Your task to perform on an android device: Do I have any events this weekend? Image 0: 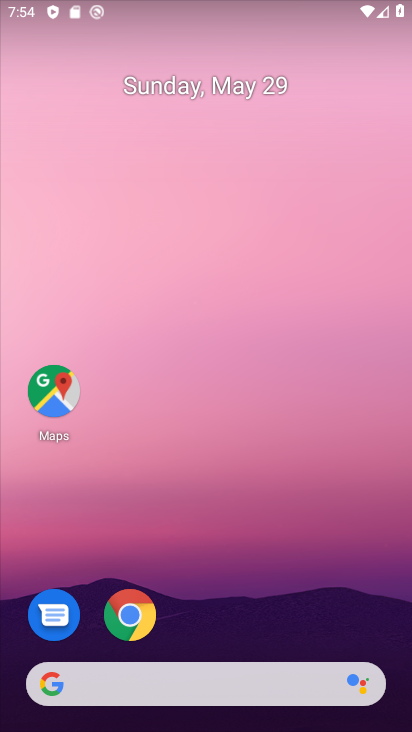
Step 0: drag from (285, 625) to (187, 171)
Your task to perform on an android device: Do I have any events this weekend? Image 1: 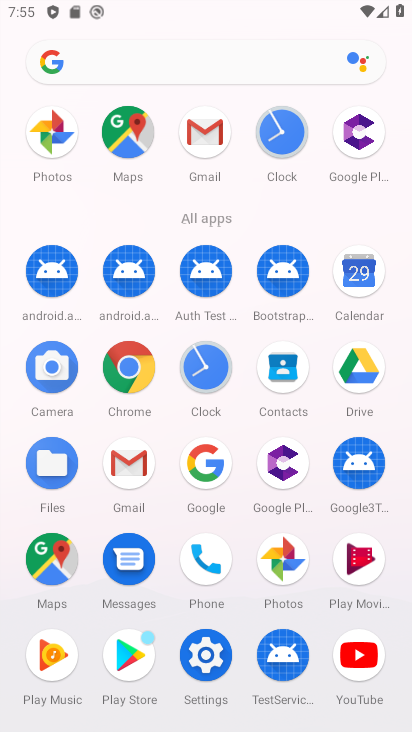
Step 1: click (353, 282)
Your task to perform on an android device: Do I have any events this weekend? Image 2: 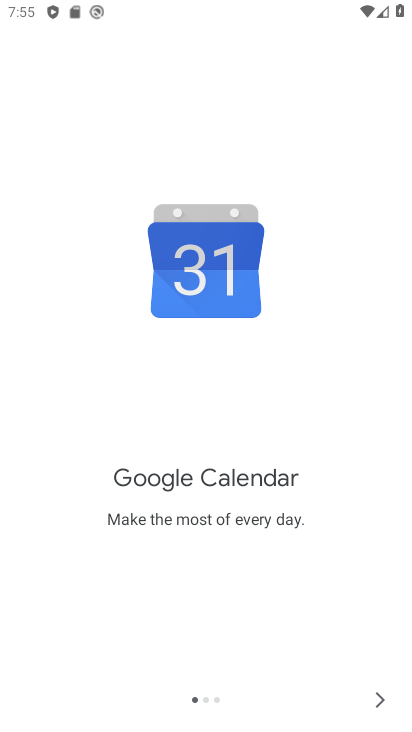
Step 2: click (376, 697)
Your task to perform on an android device: Do I have any events this weekend? Image 3: 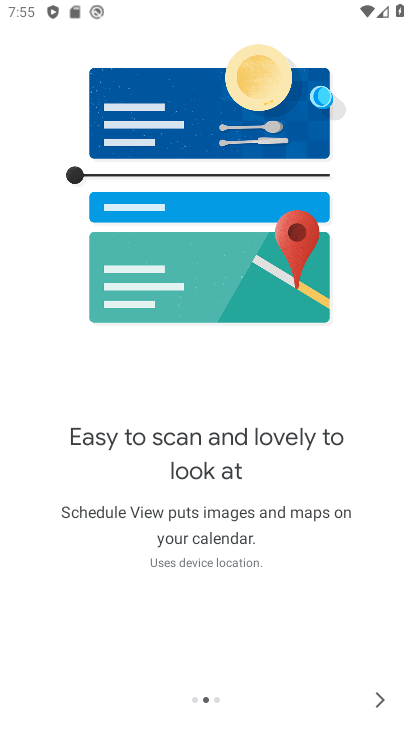
Step 3: click (376, 697)
Your task to perform on an android device: Do I have any events this weekend? Image 4: 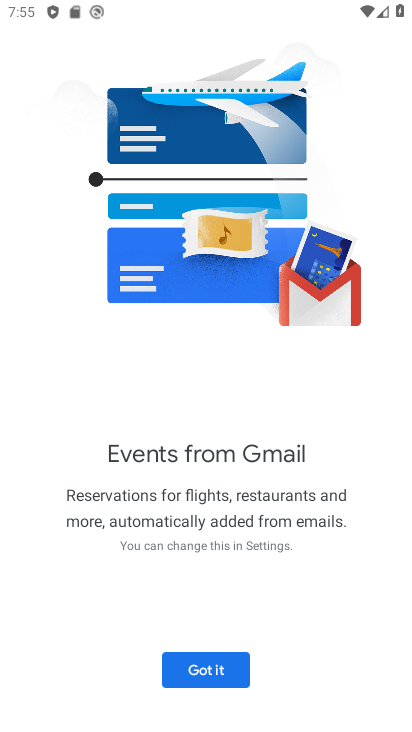
Step 4: click (223, 652)
Your task to perform on an android device: Do I have any events this weekend? Image 5: 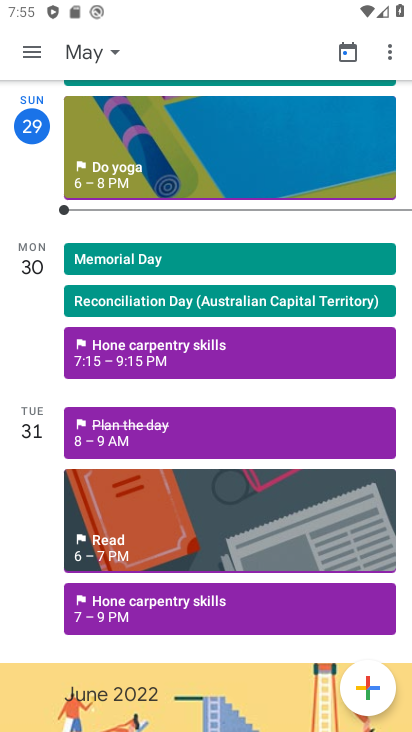
Step 5: click (33, 51)
Your task to perform on an android device: Do I have any events this weekend? Image 6: 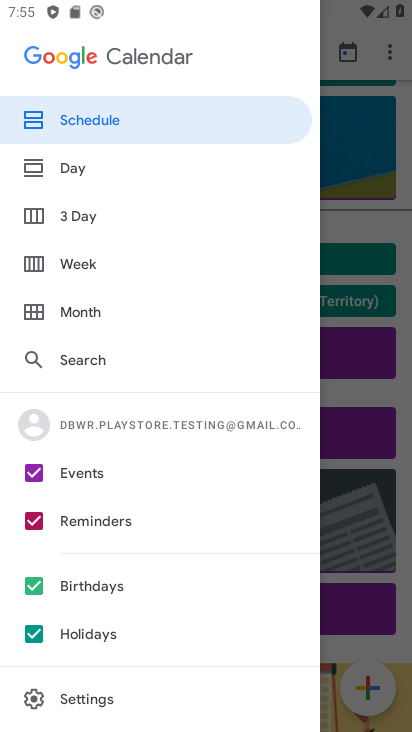
Step 6: task complete